Your task to perform on an android device: Open location settings Image 0: 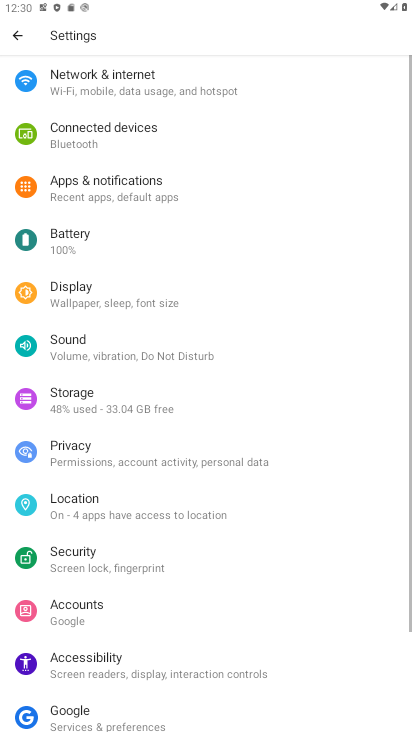
Step 0: click (75, 507)
Your task to perform on an android device: Open location settings Image 1: 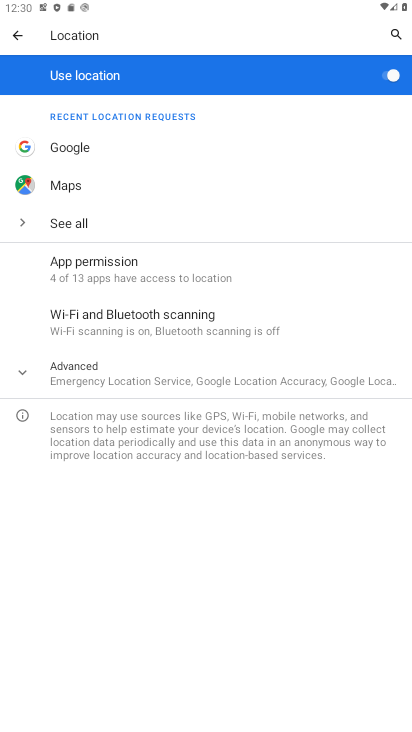
Step 1: task complete